Your task to perform on an android device: Open wifi settings Image 0: 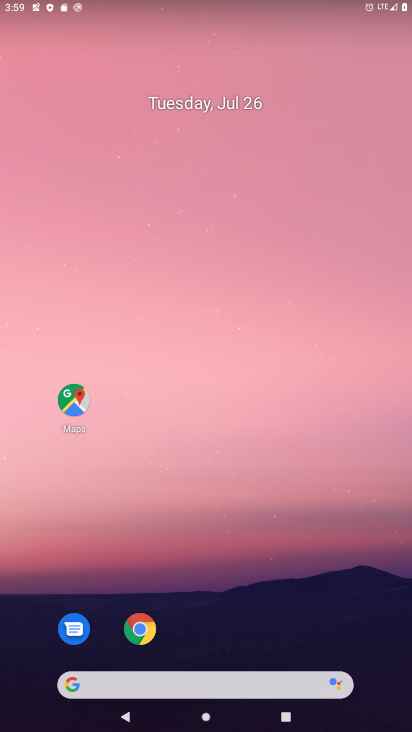
Step 0: drag from (224, 717) to (224, 495)
Your task to perform on an android device: Open wifi settings Image 1: 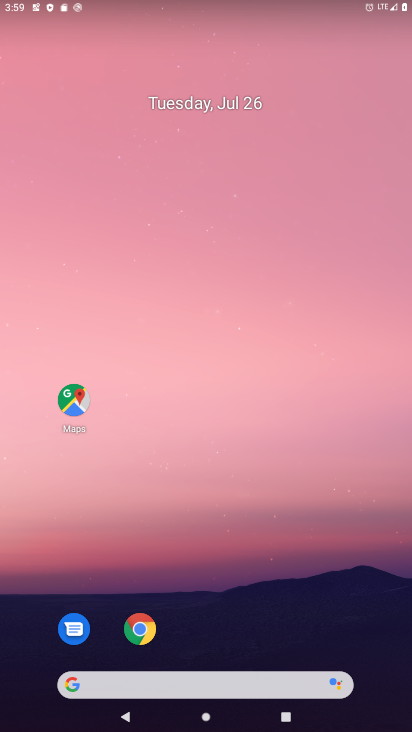
Step 1: drag from (223, 726) to (223, 206)
Your task to perform on an android device: Open wifi settings Image 2: 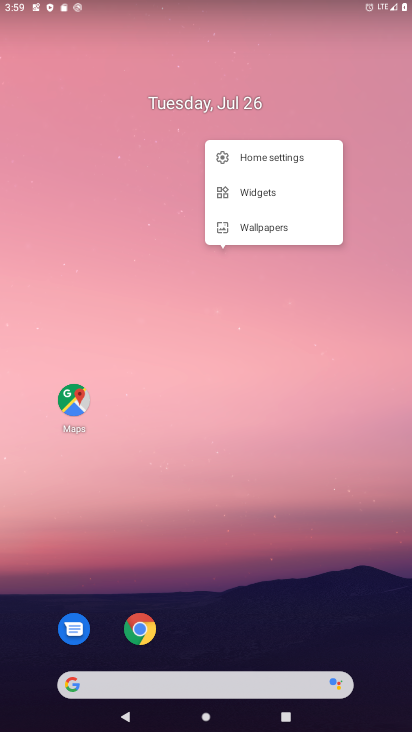
Step 2: click (249, 337)
Your task to perform on an android device: Open wifi settings Image 3: 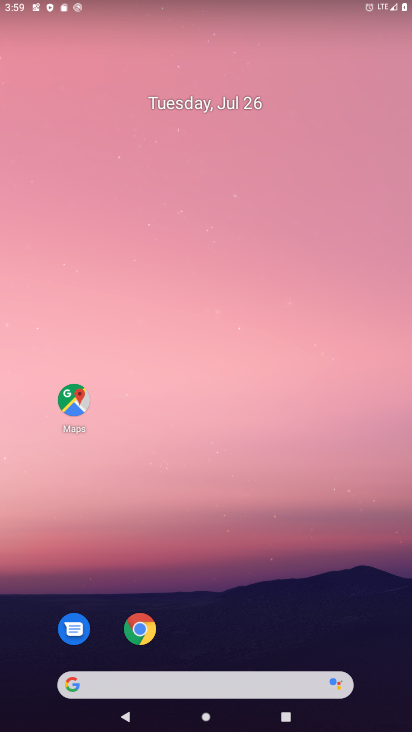
Step 3: drag from (231, 727) to (244, 359)
Your task to perform on an android device: Open wifi settings Image 4: 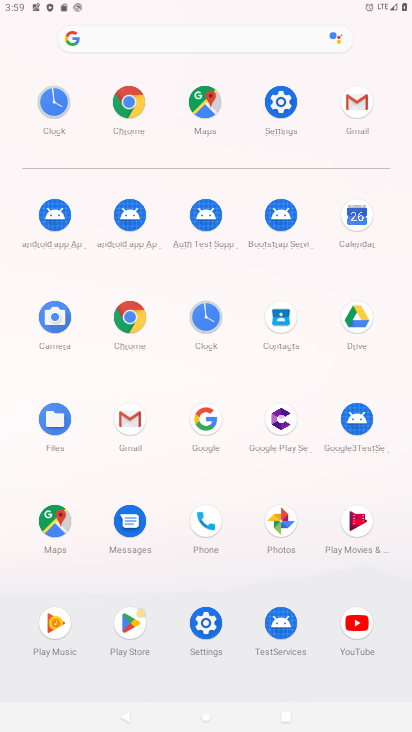
Step 4: click (283, 107)
Your task to perform on an android device: Open wifi settings Image 5: 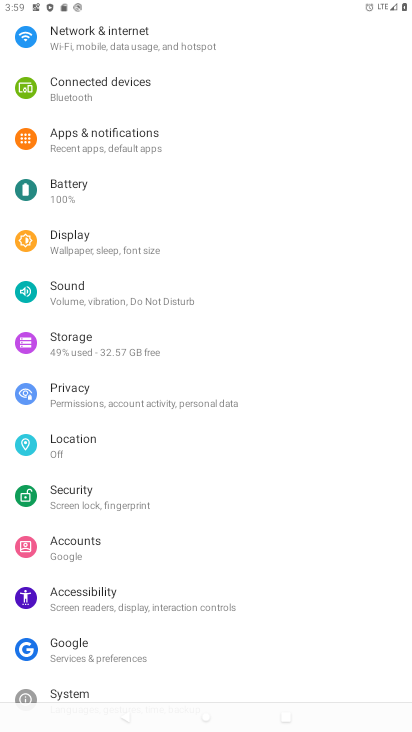
Step 5: drag from (217, 140) to (257, 671)
Your task to perform on an android device: Open wifi settings Image 6: 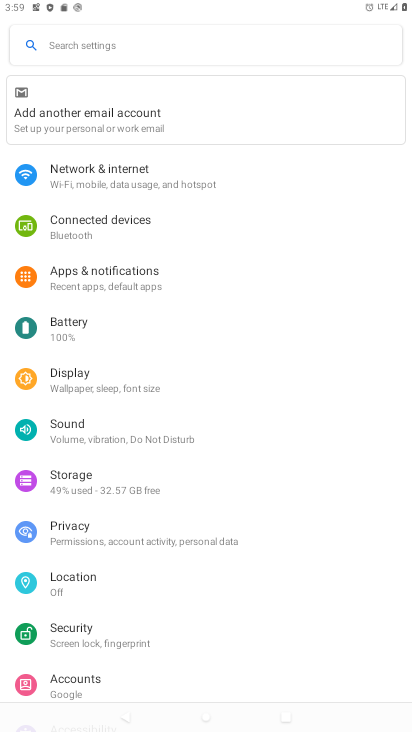
Step 6: click (100, 166)
Your task to perform on an android device: Open wifi settings Image 7: 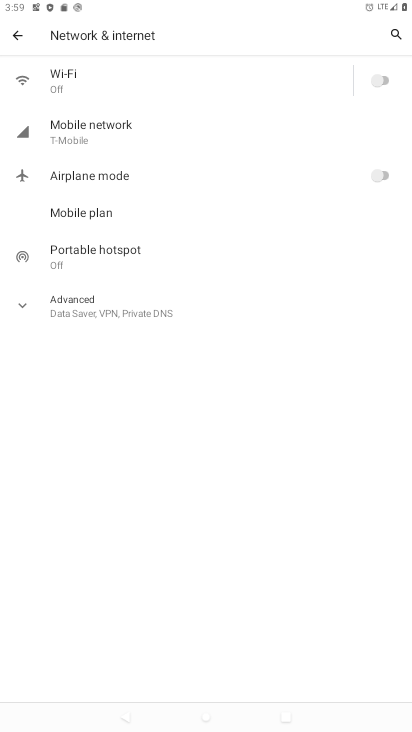
Step 7: click (61, 75)
Your task to perform on an android device: Open wifi settings Image 8: 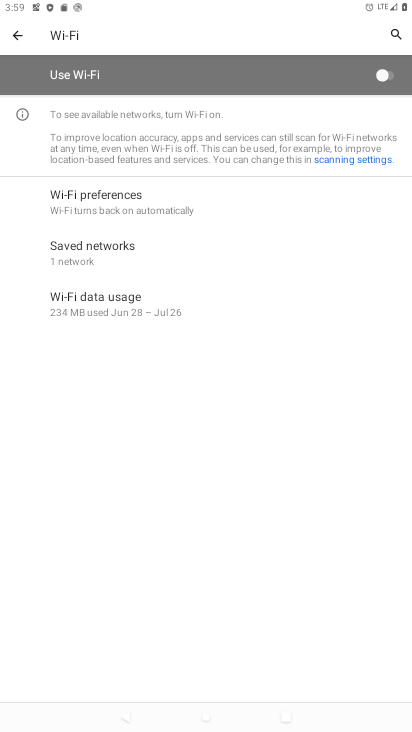
Step 8: task complete